Your task to perform on an android device: Do I have any events this weekend? Image 0: 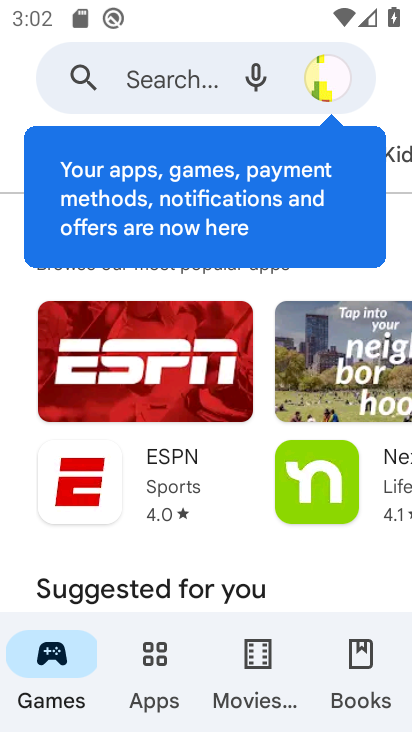
Step 0: press home button
Your task to perform on an android device: Do I have any events this weekend? Image 1: 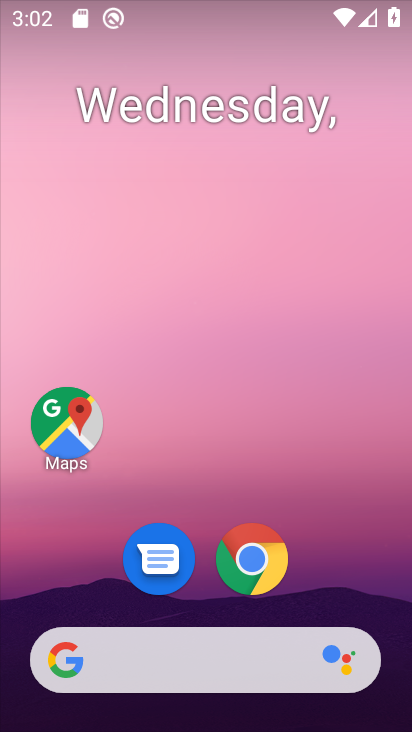
Step 1: drag from (215, 600) to (201, 98)
Your task to perform on an android device: Do I have any events this weekend? Image 2: 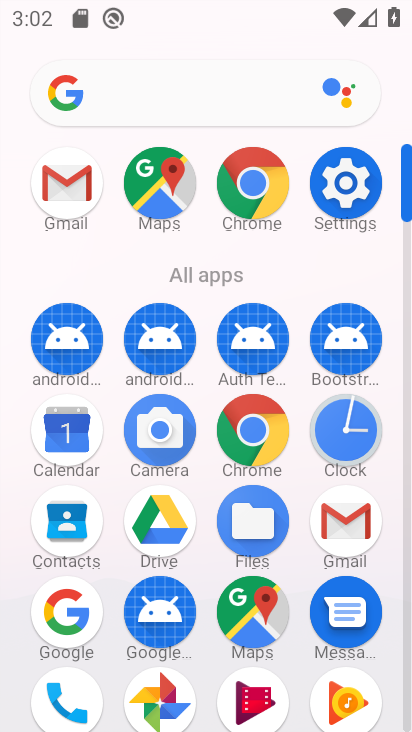
Step 2: click (65, 437)
Your task to perform on an android device: Do I have any events this weekend? Image 3: 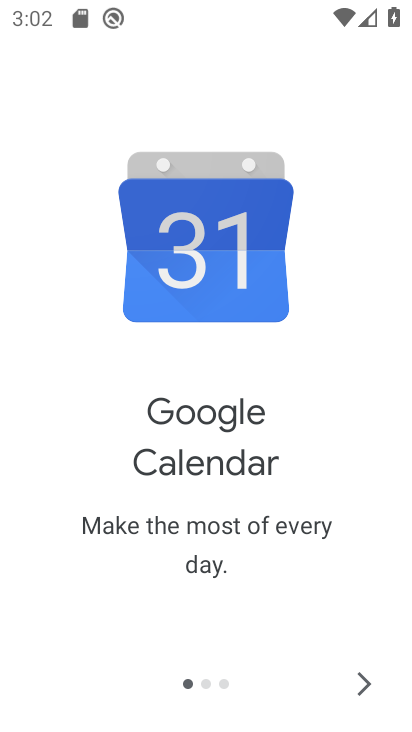
Step 3: click (350, 678)
Your task to perform on an android device: Do I have any events this weekend? Image 4: 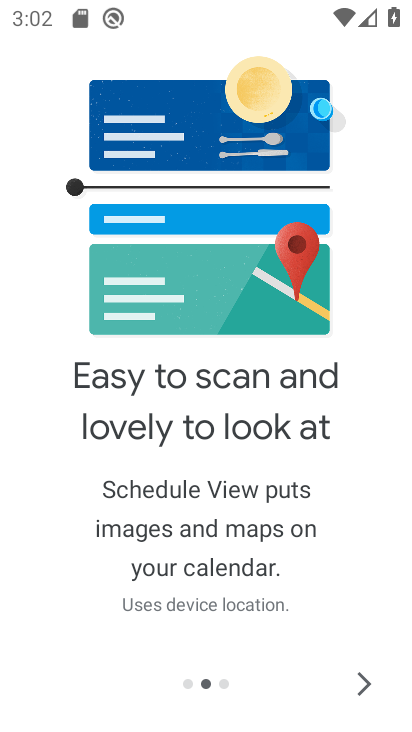
Step 4: click (350, 678)
Your task to perform on an android device: Do I have any events this weekend? Image 5: 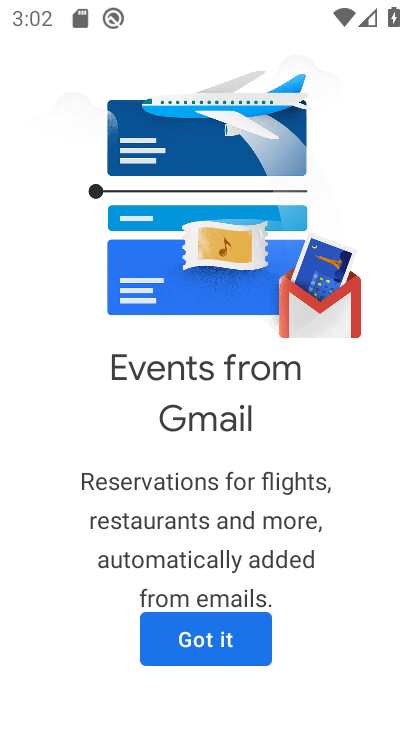
Step 5: click (221, 637)
Your task to perform on an android device: Do I have any events this weekend? Image 6: 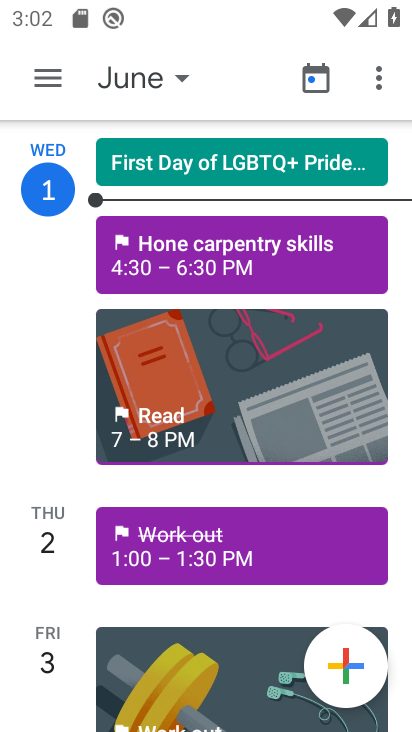
Step 6: click (46, 89)
Your task to perform on an android device: Do I have any events this weekend? Image 7: 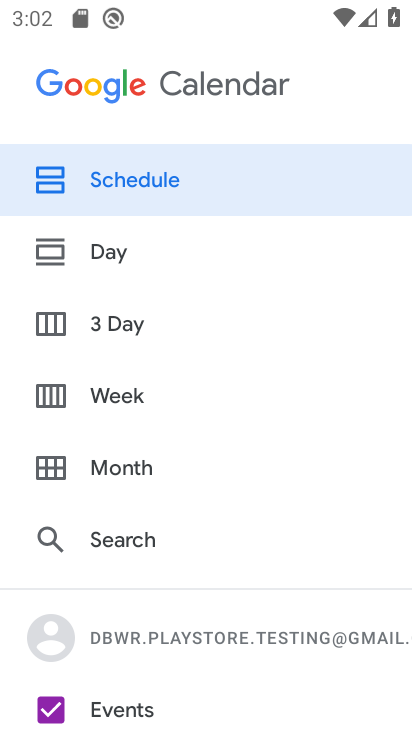
Step 7: drag from (113, 576) to (171, 240)
Your task to perform on an android device: Do I have any events this weekend? Image 8: 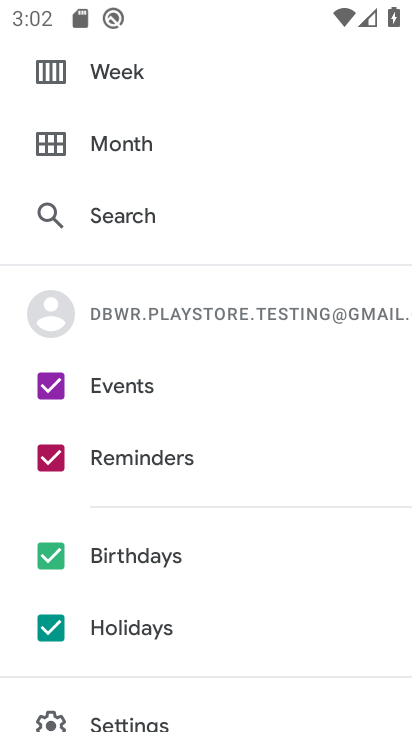
Step 8: click (129, 468)
Your task to perform on an android device: Do I have any events this weekend? Image 9: 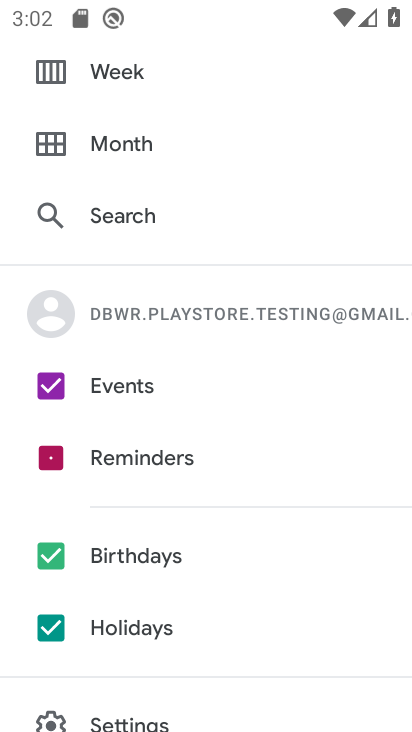
Step 9: click (119, 558)
Your task to perform on an android device: Do I have any events this weekend? Image 10: 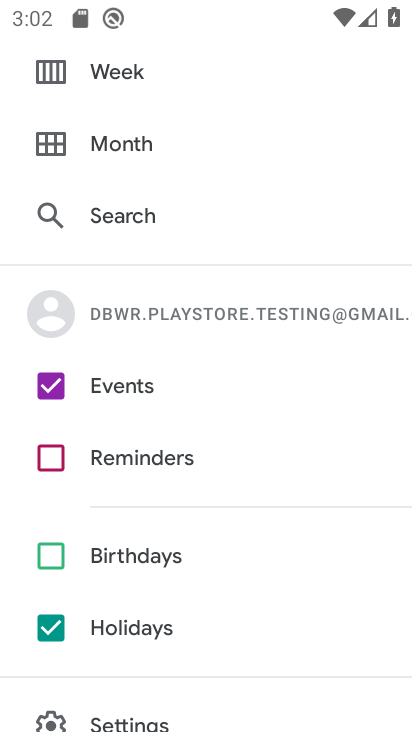
Step 10: click (120, 635)
Your task to perform on an android device: Do I have any events this weekend? Image 11: 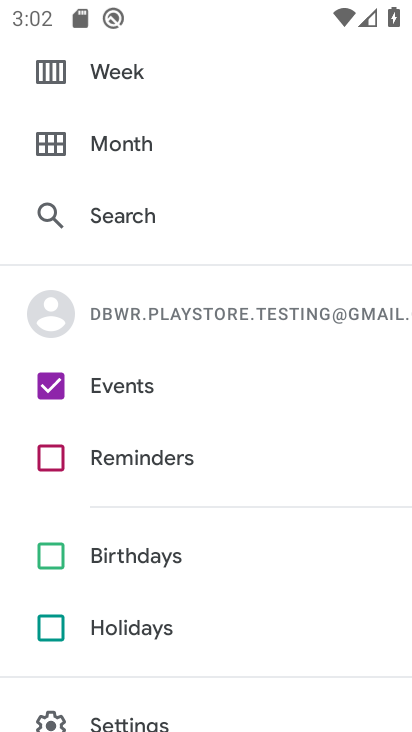
Step 11: click (107, 77)
Your task to perform on an android device: Do I have any events this weekend? Image 12: 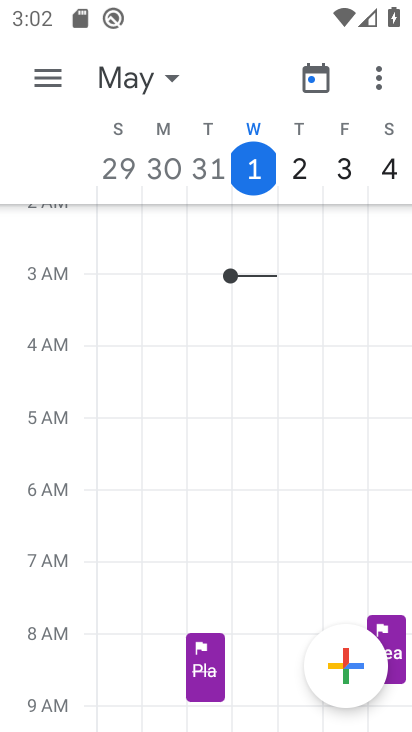
Step 12: task complete